Your task to perform on an android device: see tabs open on other devices in the chrome app Image 0: 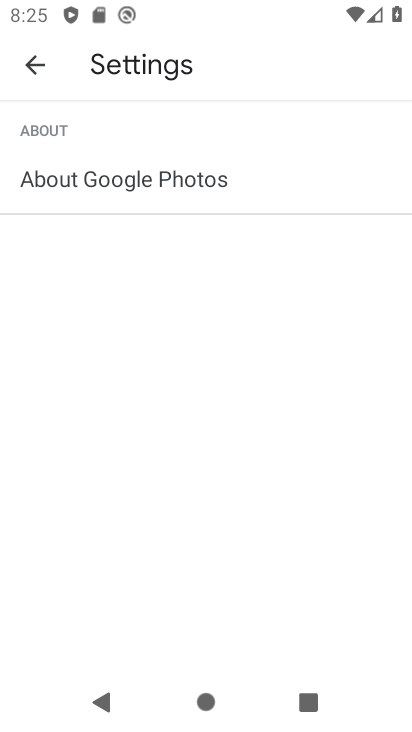
Step 0: press home button
Your task to perform on an android device: see tabs open on other devices in the chrome app Image 1: 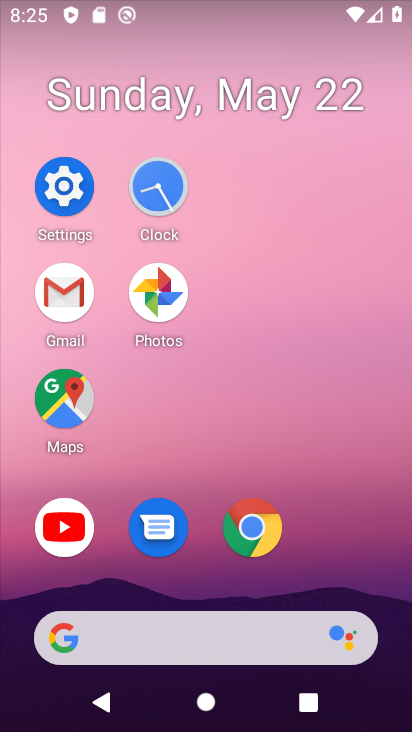
Step 1: click (265, 542)
Your task to perform on an android device: see tabs open on other devices in the chrome app Image 2: 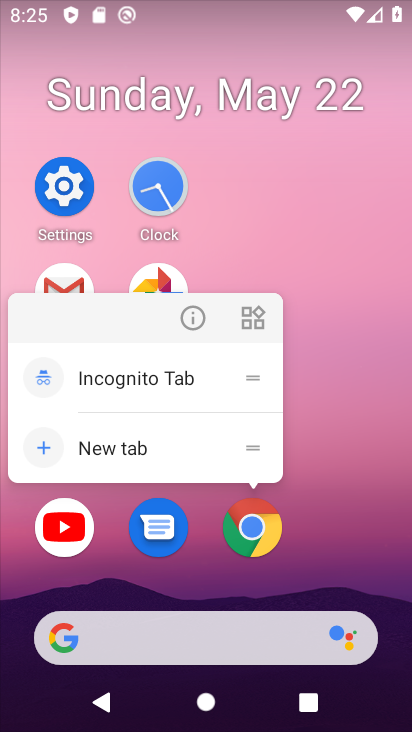
Step 2: click (261, 545)
Your task to perform on an android device: see tabs open on other devices in the chrome app Image 3: 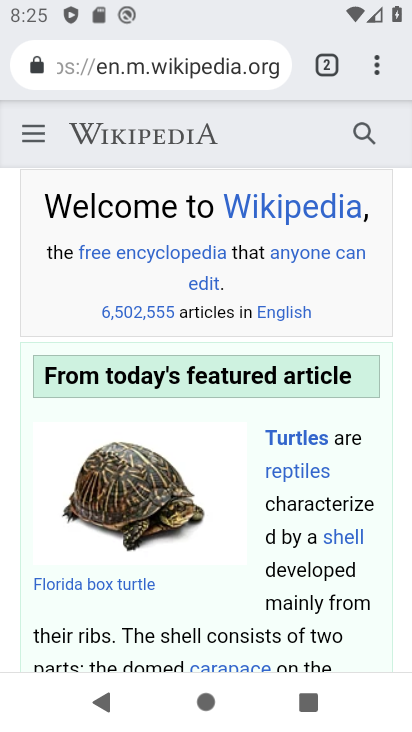
Step 3: click (370, 67)
Your task to perform on an android device: see tabs open on other devices in the chrome app Image 4: 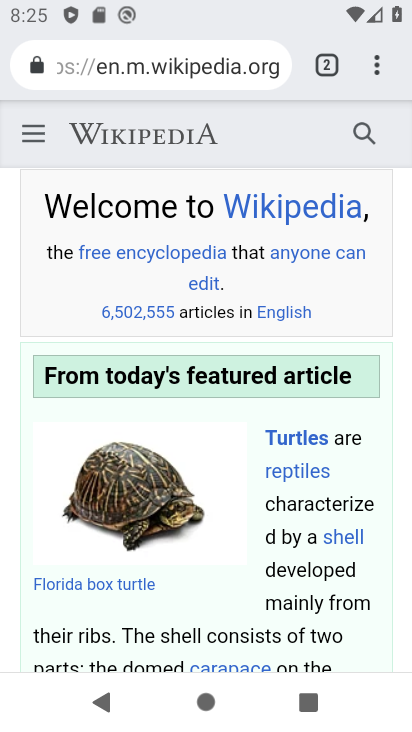
Step 4: click (377, 65)
Your task to perform on an android device: see tabs open on other devices in the chrome app Image 5: 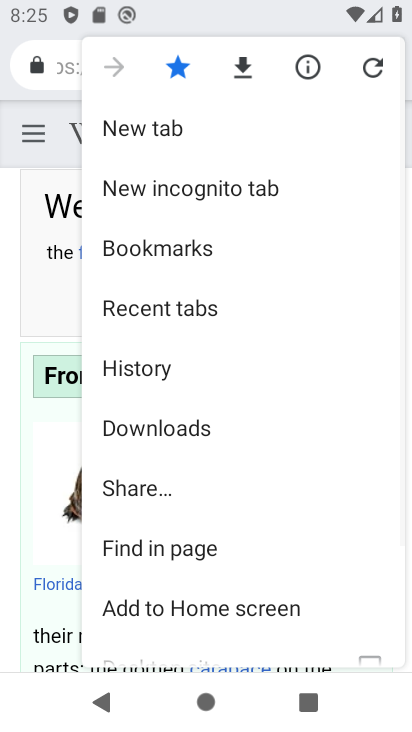
Step 5: click (247, 322)
Your task to perform on an android device: see tabs open on other devices in the chrome app Image 6: 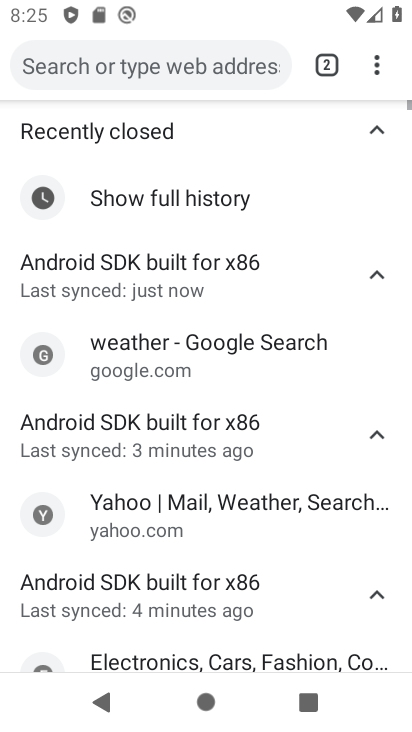
Step 6: task complete